Your task to perform on an android device: Open the calendar and show me this week's events? Image 0: 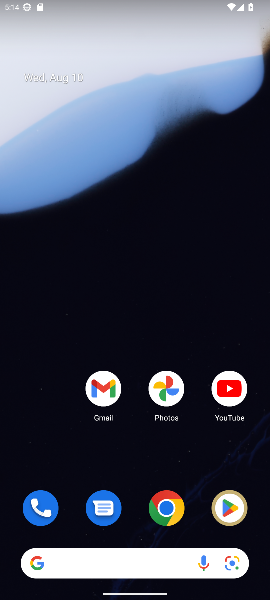
Step 0: press home button
Your task to perform on an android device: Open the calendar and show me this week's events? Image 1: 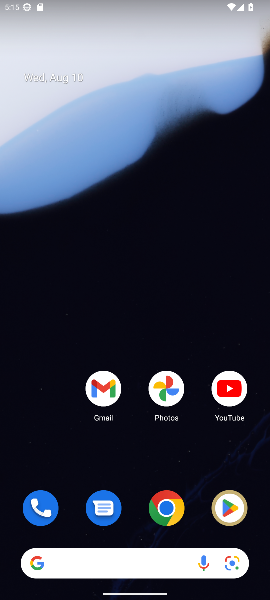
Step 1: drag from (139, 530) to (225, 149)
Your task to perform on an android device: Open the calendar and show me this week's events? Image 2: 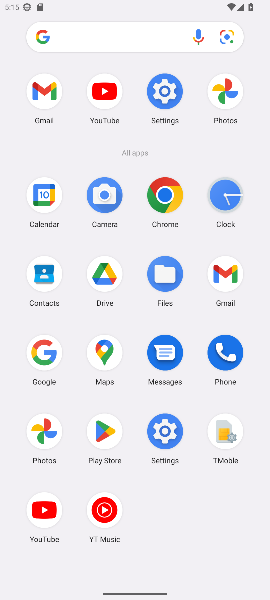
Step 2: click (45, 190)
Your task to perform on an android device: Open the calendar and show me this week's events? Image 3: 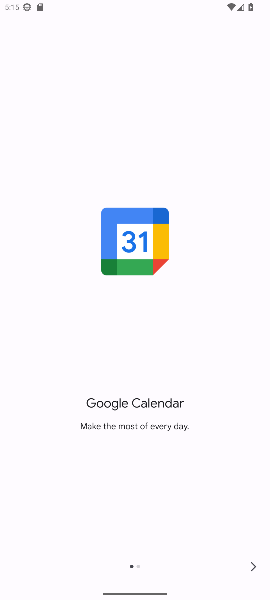
Step 3: click (249, 565)
Your task to perform on an android device: Open the calendar and show me this week's events? Image 4: 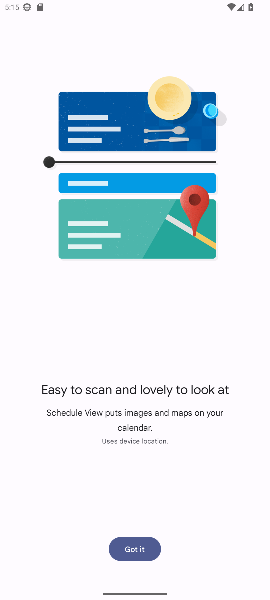
Step 4: click (127, 546)
Your task to perform on an android device: Open the calendar and show me this week's events? Image 5: 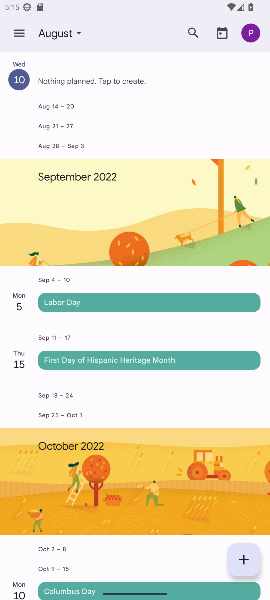
Step 5: click (22, 37)
Your task to perform on an android device: Open the calendar and show me this week's events? Image 6: 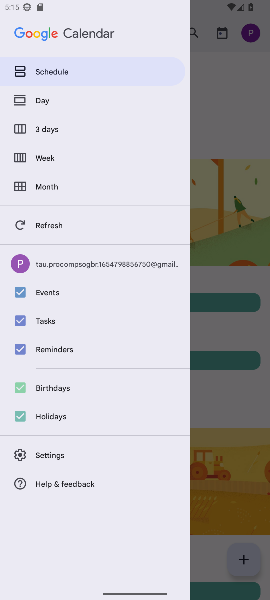
Step 6: click (40, 157)
Your task to perform on an android device: Open the calendar and show me this week's events? Image 7: 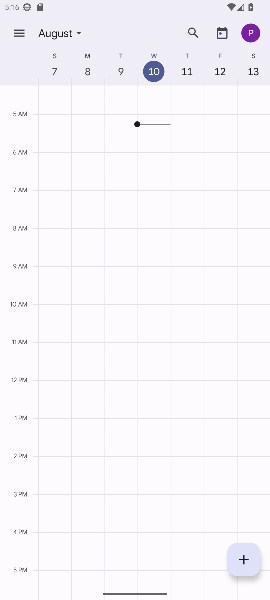
Step 7: task complete